Your task to perform on an android device: allow notifications from all sites in the chrome app Image 0: 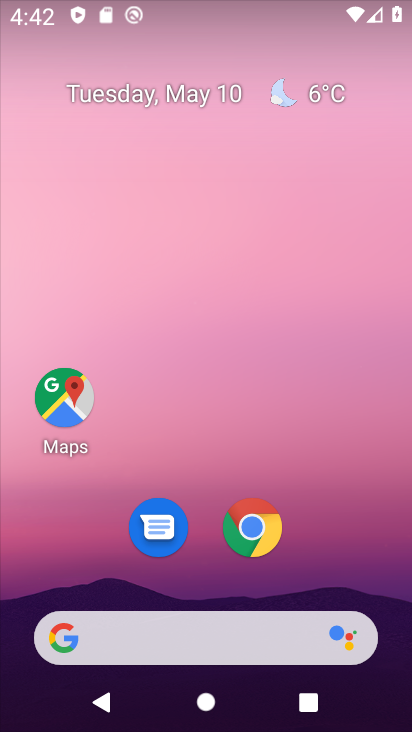
Step 0: click (239, 531)
Your task to perform on an android device: allow notifications from all sites in the chrome app Image 1: 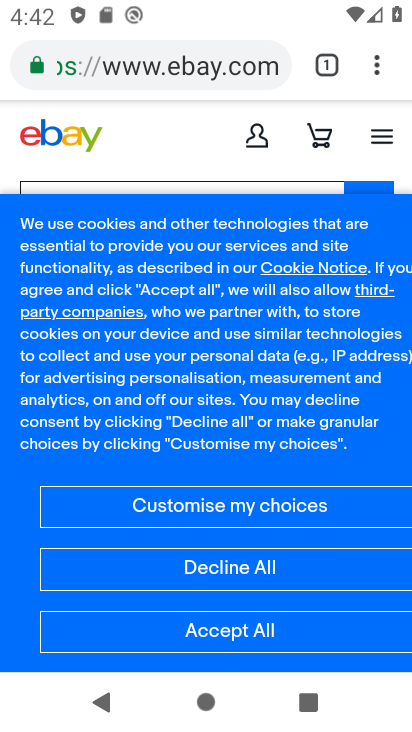
Step 1: click (379, 69)
Your task to perform on an android device: allow notifications from all sites in the chrome app Image 2: 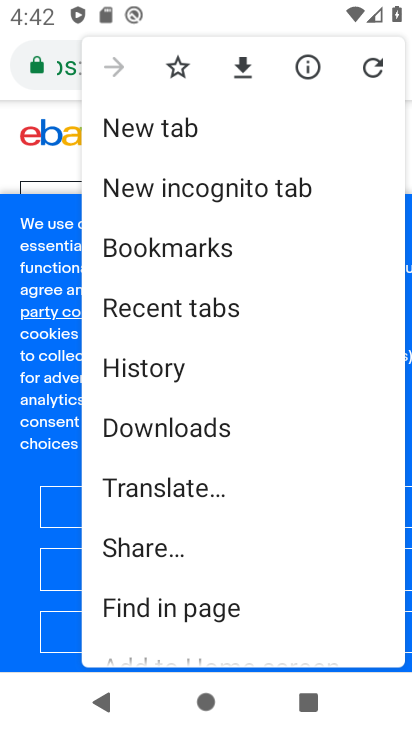
Step 2: drag from (170, 605) to (196, 180)
Your task to perform on an android device: allow notifications from all sites in the chrome app Image 3: 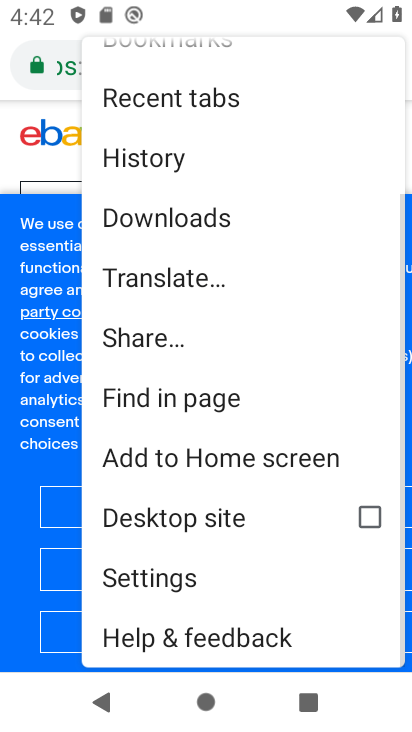
Step 3: click (163, 579)
Your task to perform on an android device: allow notifications from all sites in the chrome app Image 4: 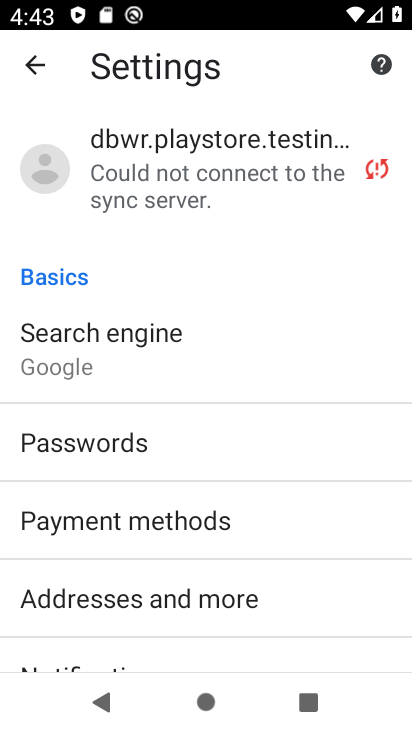
Step 4: drag from (90, 635) to (149, 282)
Your task to perform on an android device: allow notifications from all sites in the chrome app Image 5: 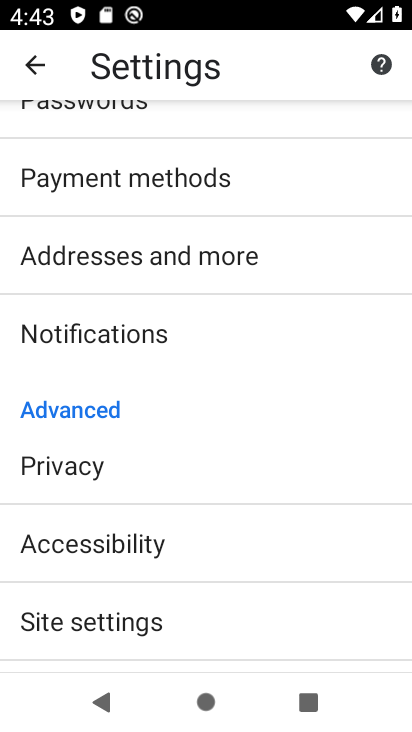
Step 5: drag from (112, 613) to (170, 247)
Your task to perform on an android device: allow notifications from all sites in the chrome app Image 6: 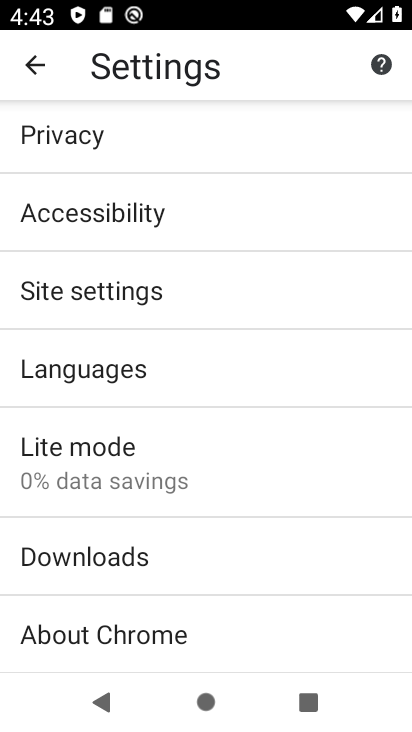
Step 6: click (144, 293)
Your task to perform on an android device: allow notifications from all sites in the chrome app Image 7: 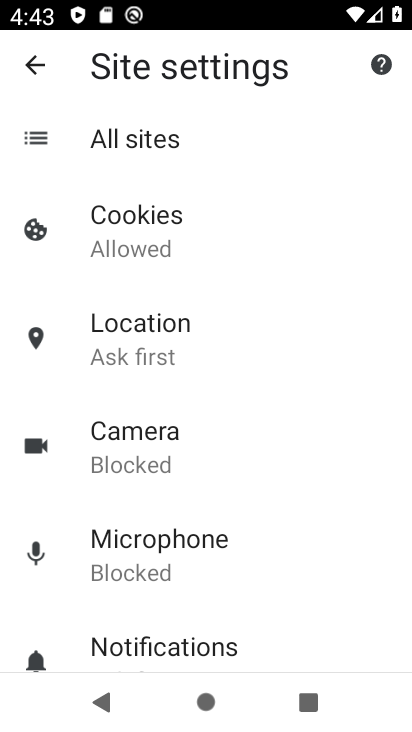
Step 7: click (159, 612)
Your task to perform on an android device: allow notifications from all sites in the chrome app Image 8: 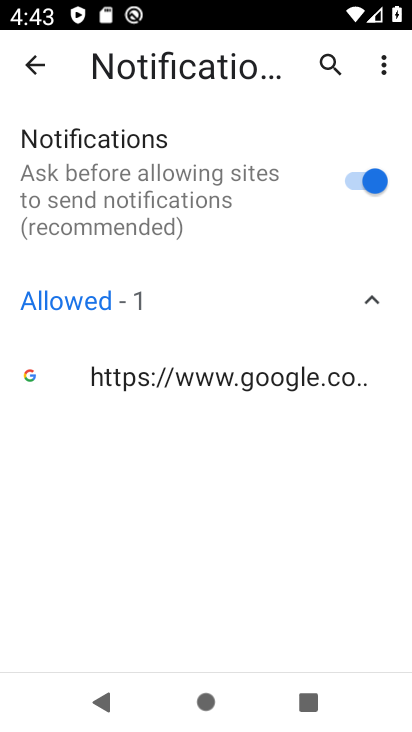
Step 8: task complete